Your task to perform on an android device: Go to Maps Image 0: 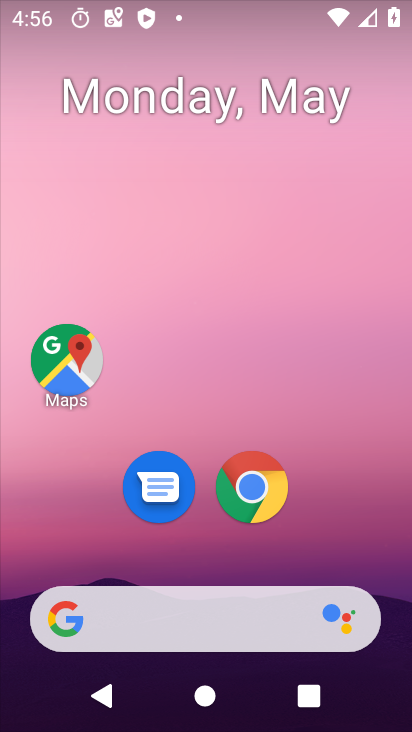
Step 0: click (45, 367)
Your task to perform on an android device: Go to Maps Image 1: 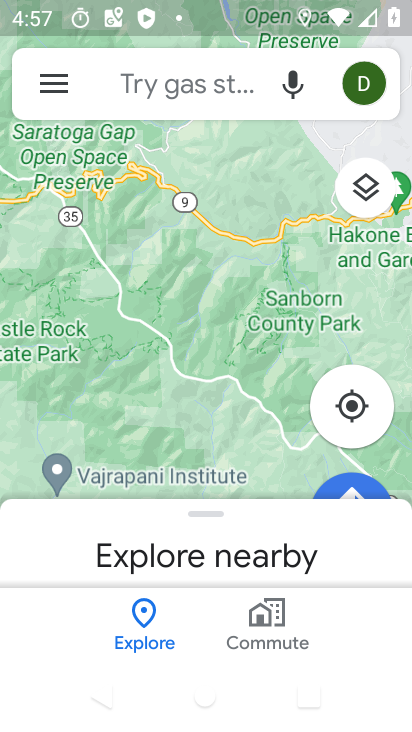
Step 1: task complete